Your task to perform on an android device: What's on my calendar tomorrow? Image 0: 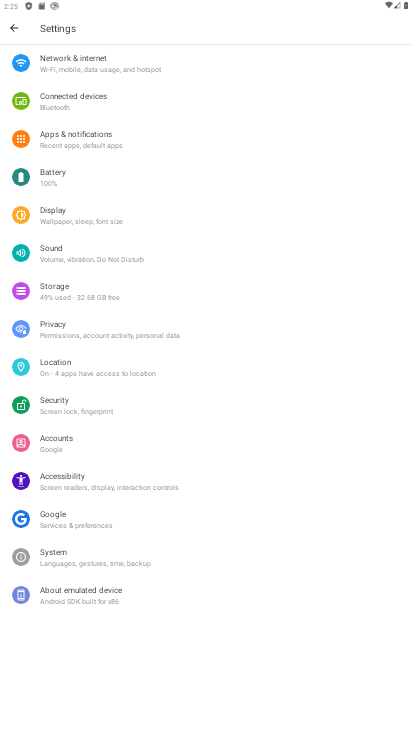
Step 0: press home button
Your task to perform on an android device: What's on my calendar tomorrow? Image 1: 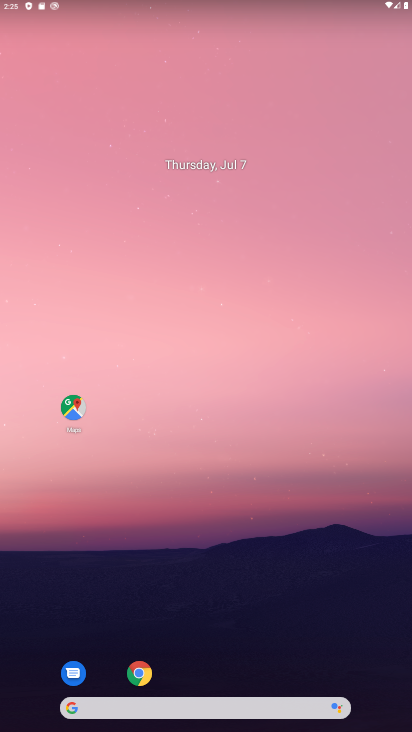
Step 1: drag from (286, 526) to (334, 168)
Your task to perform on an android device: What's on my calendar tomorrow? Image 2: 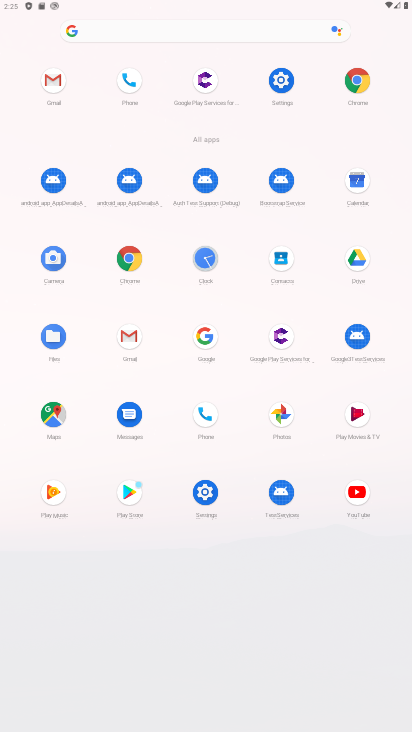
Step 2: click (353, 167)
Your task to perform on an android device: What's on my calendar tomorrow? Image 3: 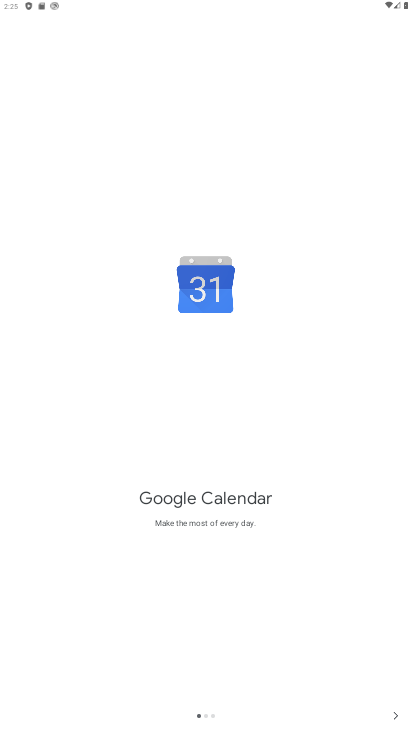
Step 3: click (389, 717)
Your task to perform on an android device: What's on my calendar tomorrow? Image 4: 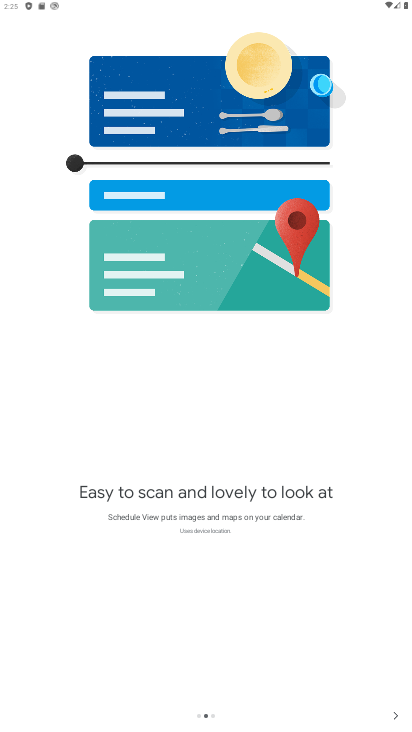
Step 4: click (389, 717)
Your task to perform on an android device: What's on my calendar tomorrow? Image 5: 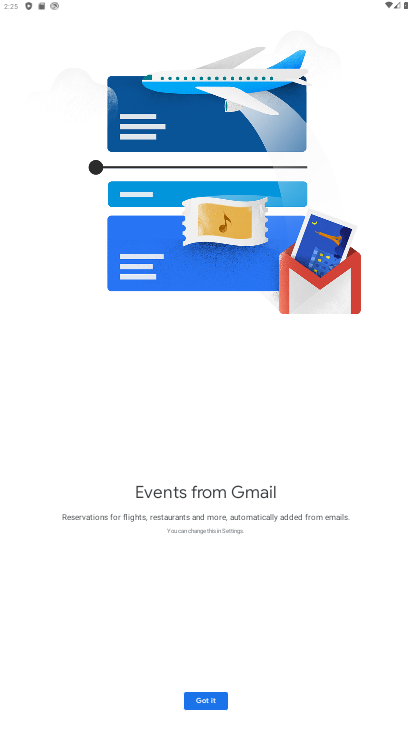
Step 5: click (206, 701)
Your task to perform on an android device: What's on my calendar tomorrow? Image 6: 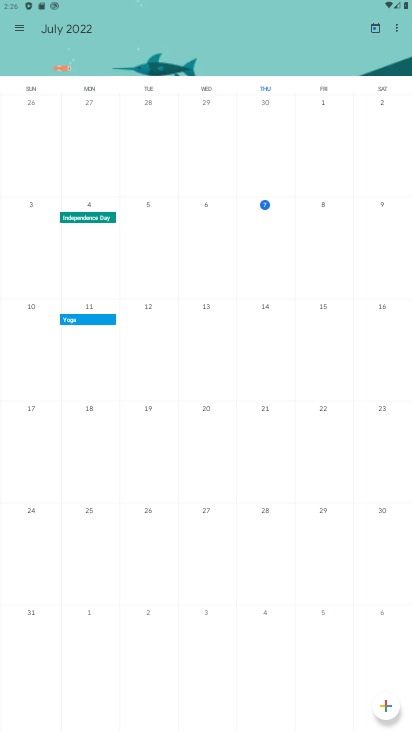
Step 6: click (260, 204)
Your task to perform on an android device: What's on my calendar tomorrow? Image 7: 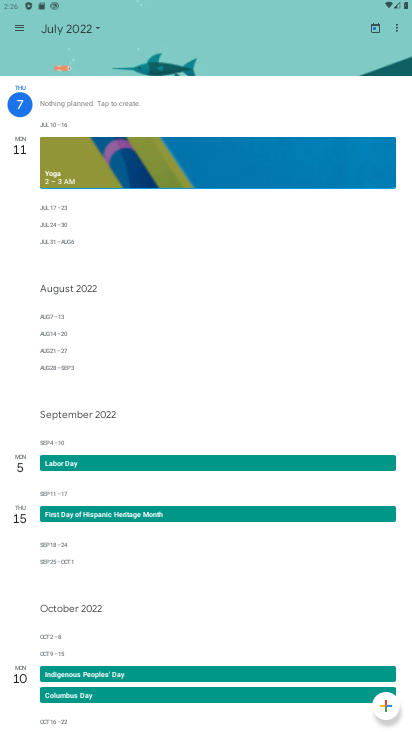
Step 7: task complete